Your task to perform on an android device: change the upload size in google photos Image 0: 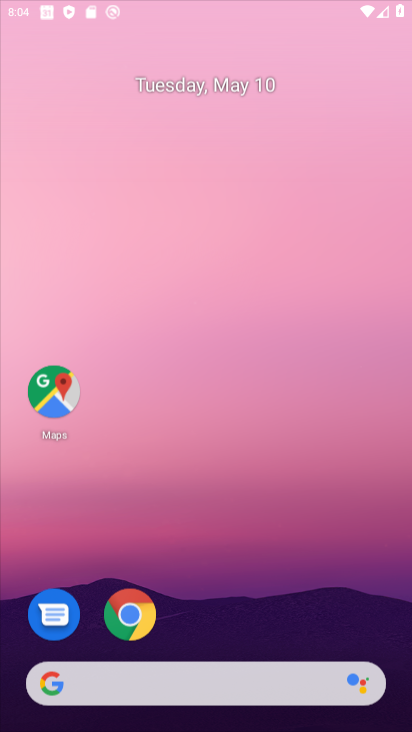
Step 0: click (326, 210)
Your task to perform on an android device: change the upload size in google photos Image 1: 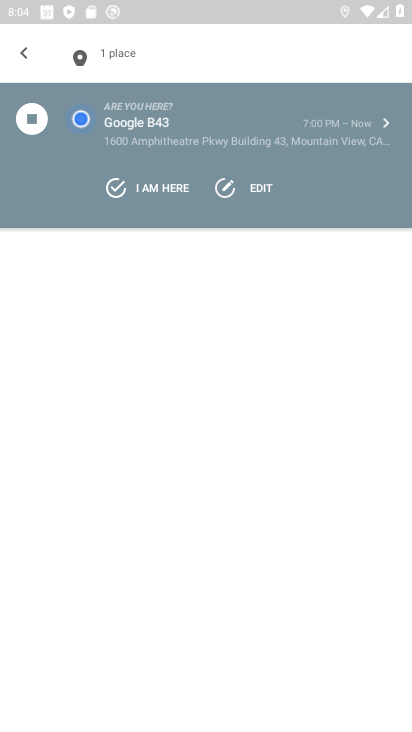
Step 1: drag from (205, 647) to (277, 312)
Your task to perform on an android device: change the upload size in google photos Image 2: 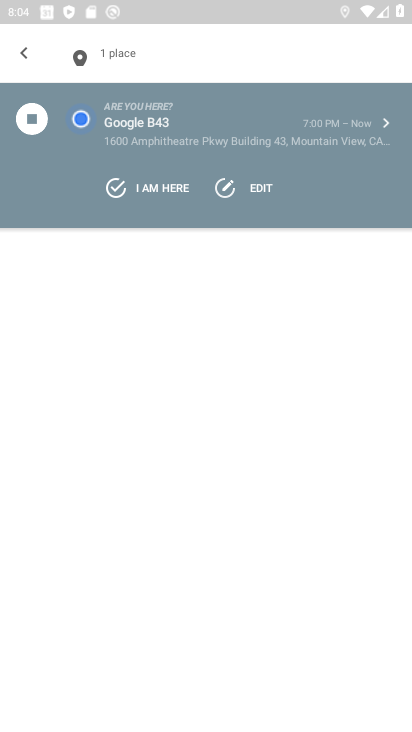
Step 2: press home button
Your task to perform on an android device: change the upload size in google photos Image 3: 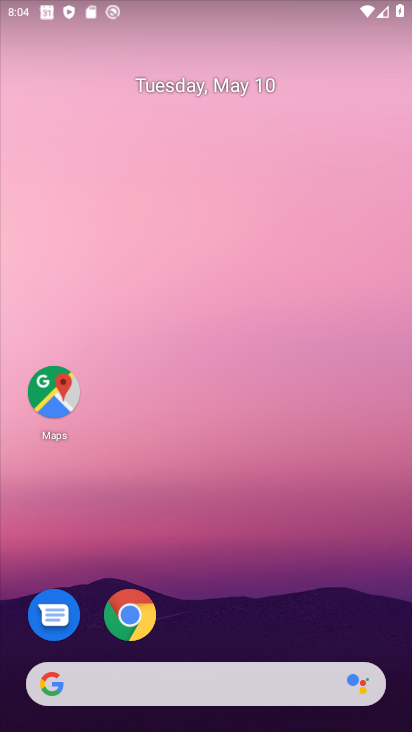
Step 3: drag from (205, 640) to (297, 353)
Your task to perform on an android device: change the upload size in google photos Image 4: 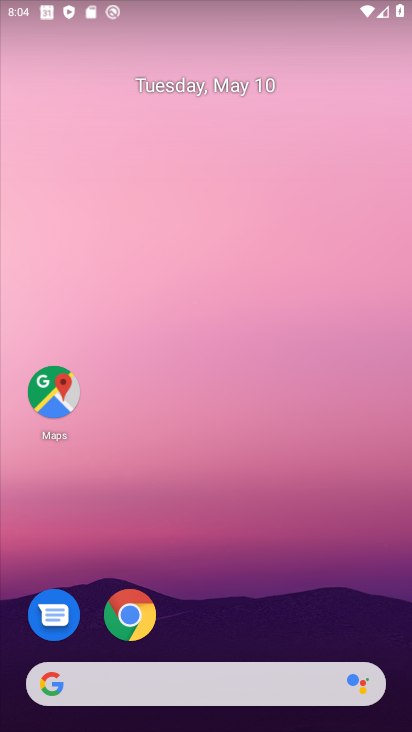
Step 4: drag from (201, 585) to (239, 65)
Your task to perform on an android device: change the upload size in google photos Image 5: 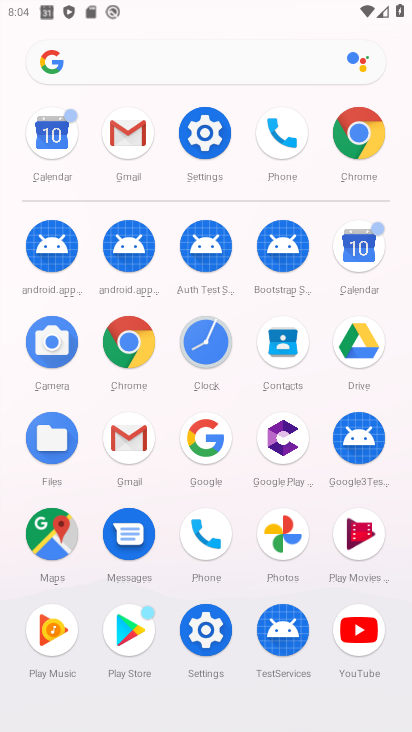
Step 5: click (278, 534)
Your task to perform on an android device: change the upload size in google photos Image 6: 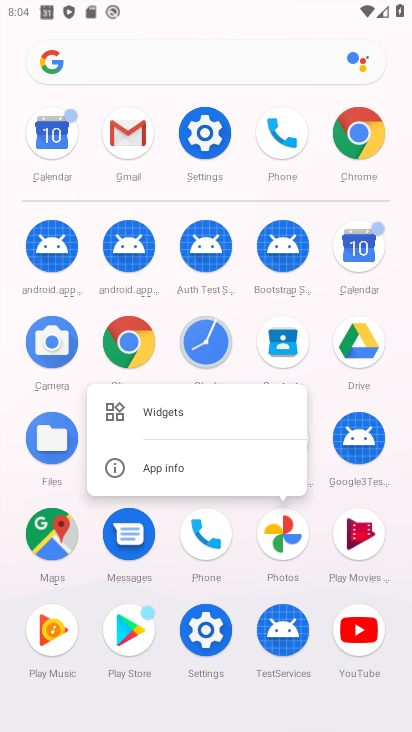
Step 6: click (125, 471)
Your task to perform on an android device: change the upload size in google photos Image 7: 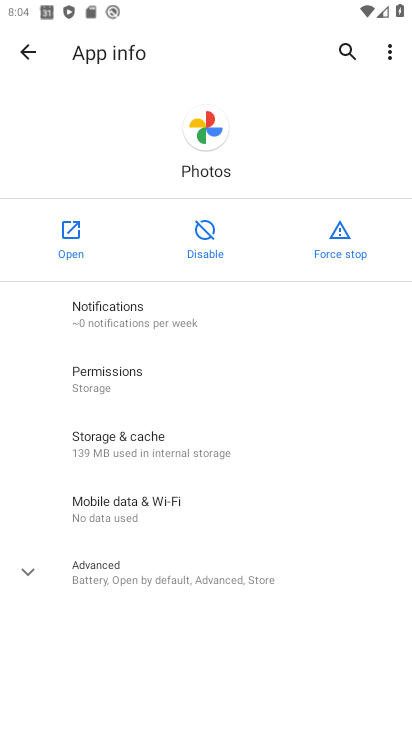
Step 7: click (75, 244)
Your task to perform on an android device: change the upload size in google photos Image 8: 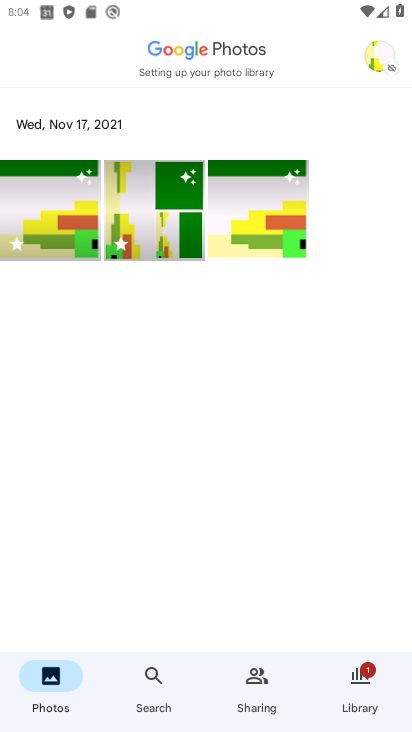
Step 8: click (386, 58)
Your task to perform on an android device: change the upload size in google photos Image 9: 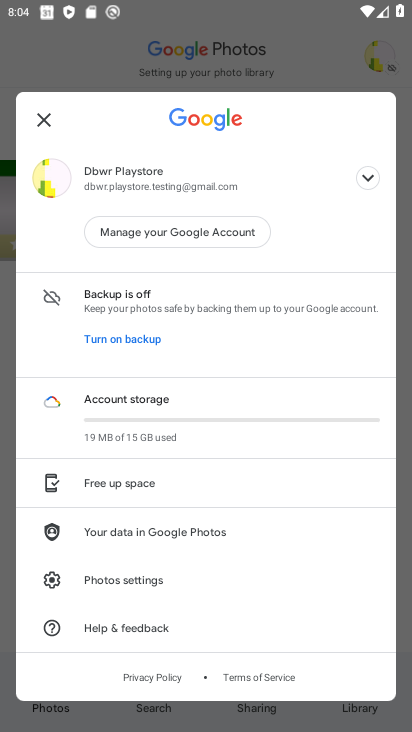
Step 9: click (119, 601)
Your task to perform on an android device: change the upload size in google photos Image 10: 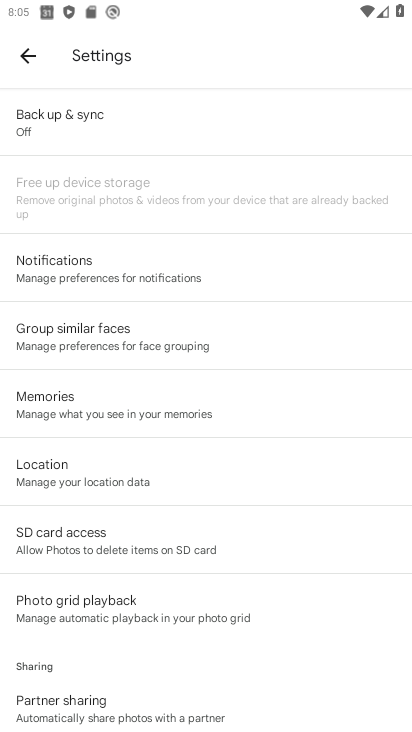
Step 10: click (132, 139)
Your task to perform on an android device: change the upload size in google photos Image 11: 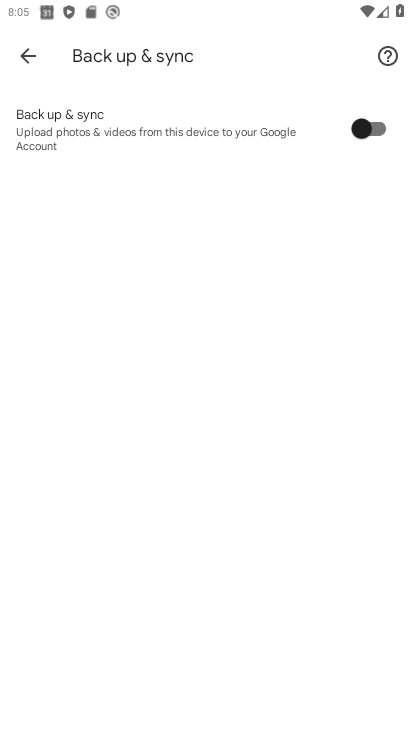
Step 11: click (372, 134)
Your task to perform on an android device: change the upload size in google photos Image 12: 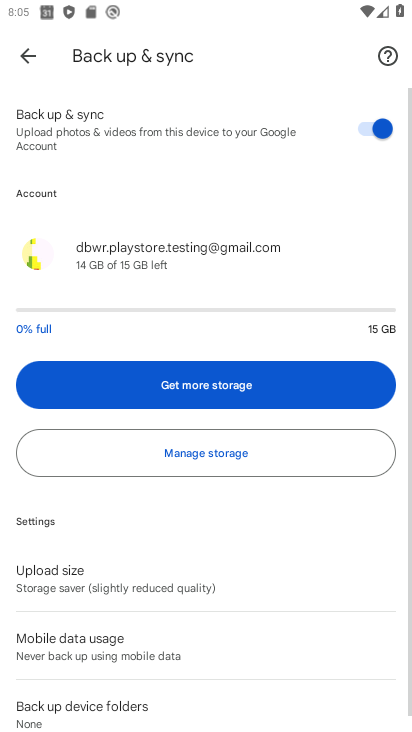
Step 12: drag from (120, 598) to (126, 546)
Your task to perform on an android device: change the upload size in google photos Image 13: 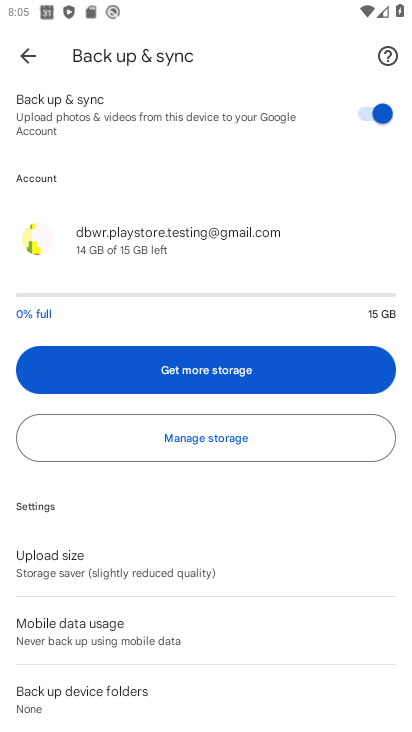
Step 13: click (99, 558)
Your task to perform on an android device: change the upload size in google photos Image 14: 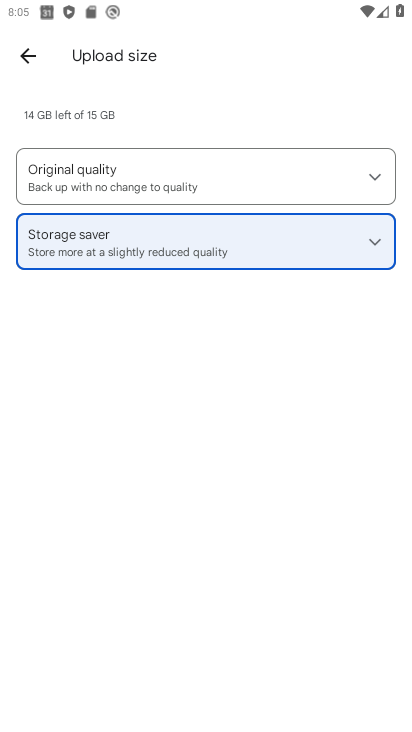
Step 14: click (200, 183)
Your task to perform on an android device: change the upload size in google photos Image 15: 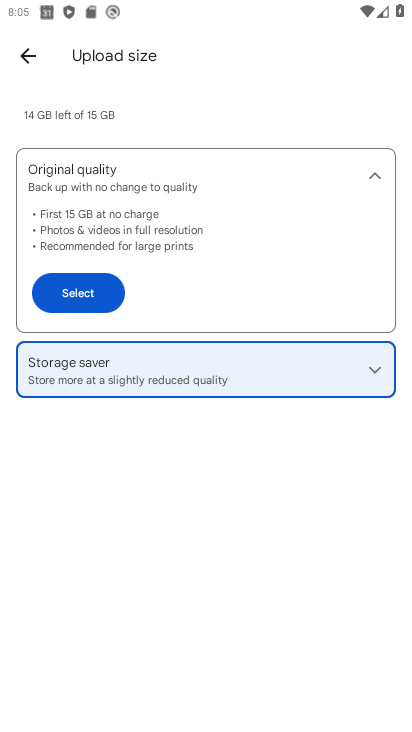
Step 15: click (81, 301)
Your task to perform on an android device: change the upload size in google photos Image 16: 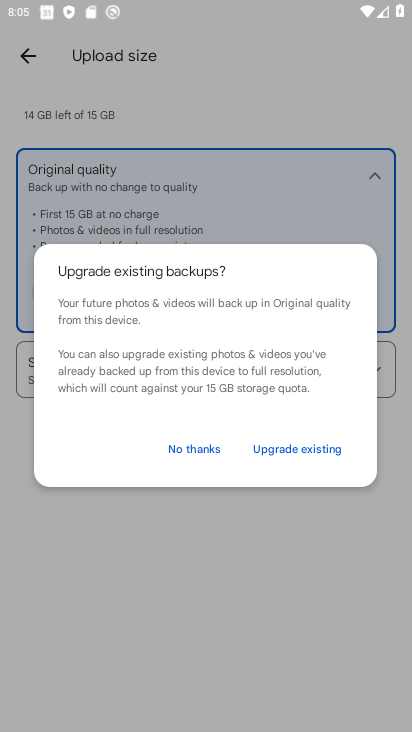
Step 16: task complete